Your task to perform on an android device: Open Android settings Image 0: 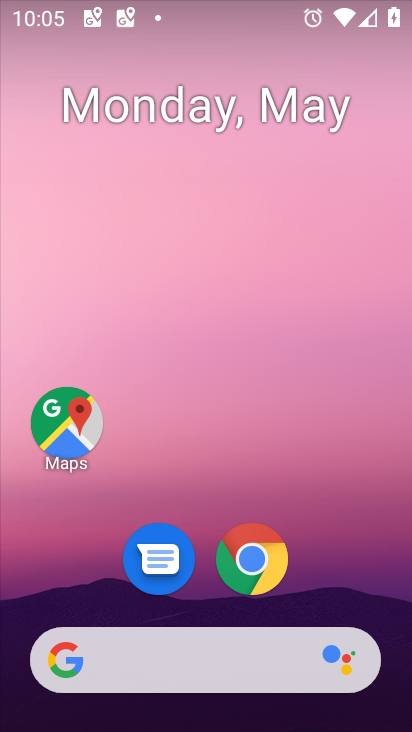
Step 0: drag from (388, 667) to (277, 71)
Your task to perform on an android device: Open Android settings Image 1: 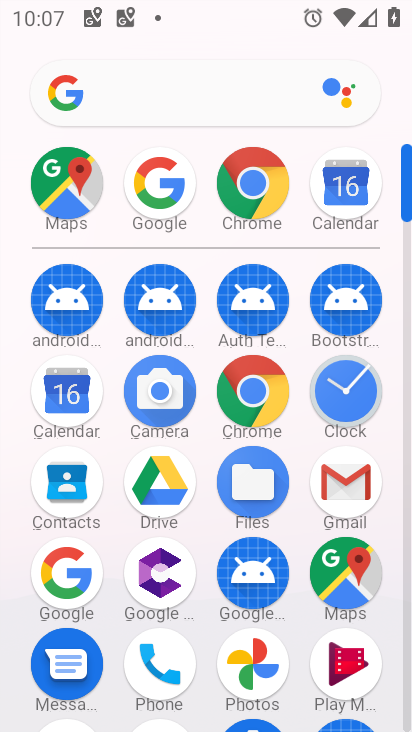
Step 1: drag from (207, 661) to (240, 103)
Your task to perform on an android device: Open Android settings Image 2: 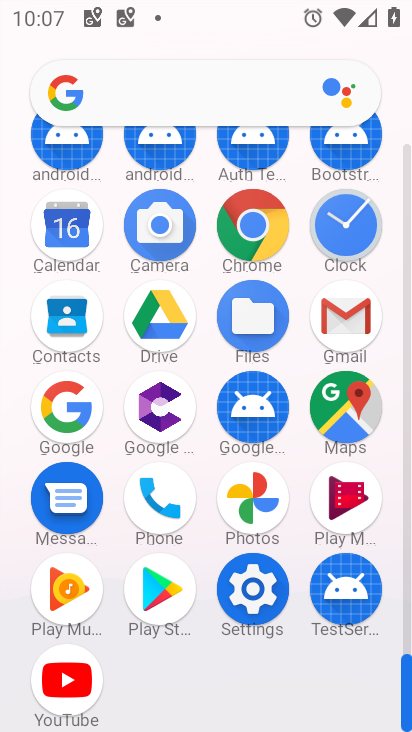
Step 2: click (261, 583)
Your task to perform on an android device: Open Android settings Image 3: 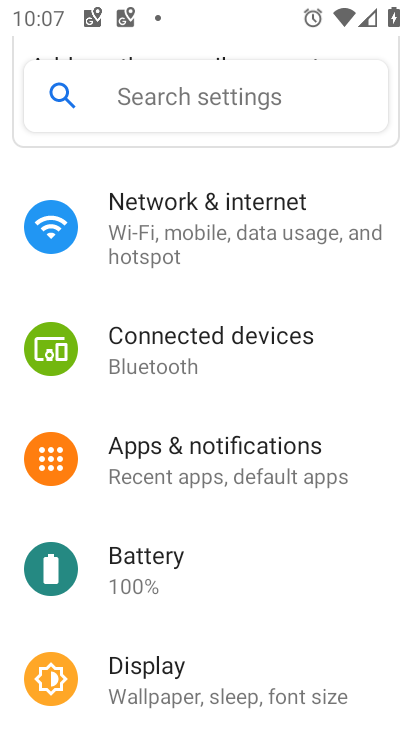
Step 3: drag from (139, 696) to (265, 122)
Your task to perform on an android device: Open Android settings Image 4: 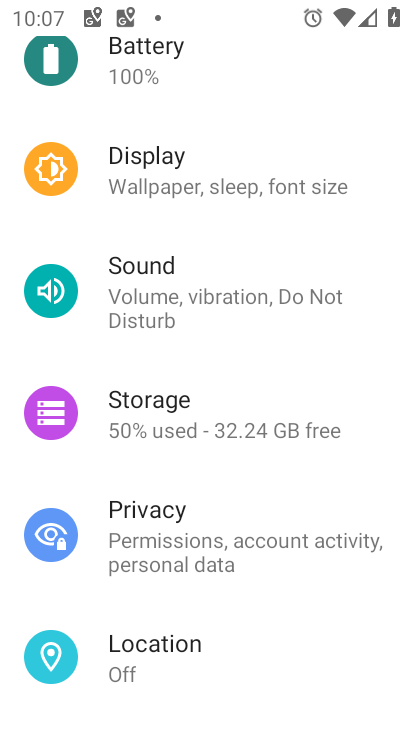
Step 4: drag from (177, 621) to (265, 81)
Your task to perform on an android device: Open Android settings Image 5: 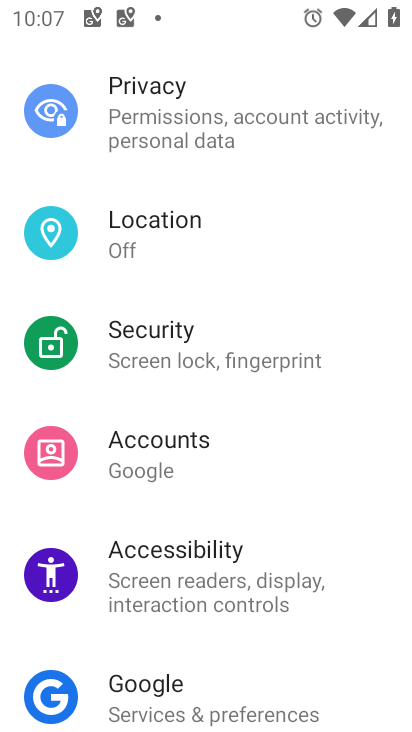
Step 5: drag from (174, 663) to (203, 73)
Your task to perform on an android device: Open Android settings Image 6: 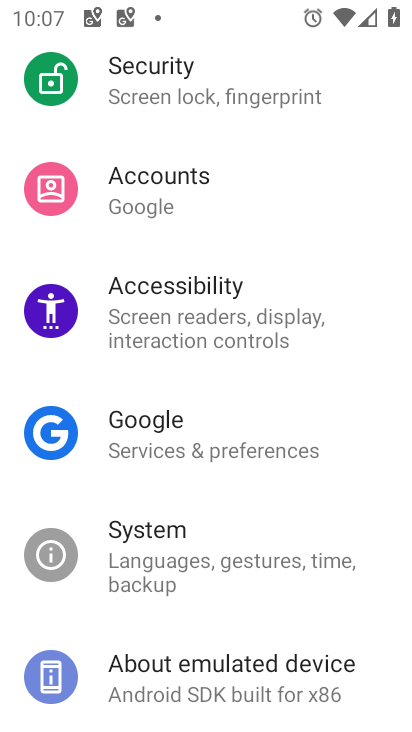
Step 6: click (183, 676)
Your task to perform on an android device: Open Android settings Image 7: 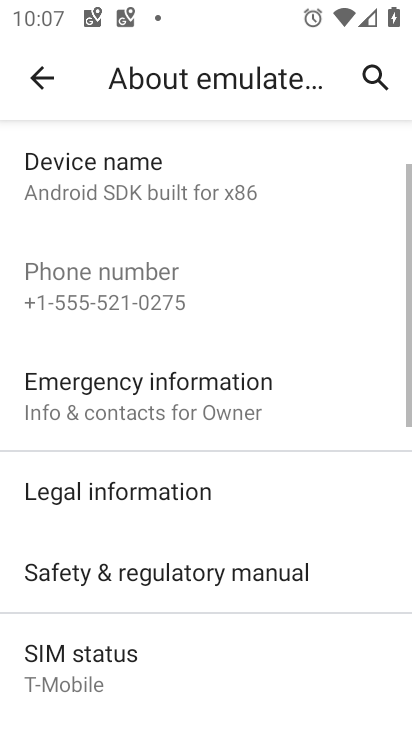
Step 7: drag from (160, 636) to (174, 115)
Your task to perform on an android device: Open Android settings Image 8: 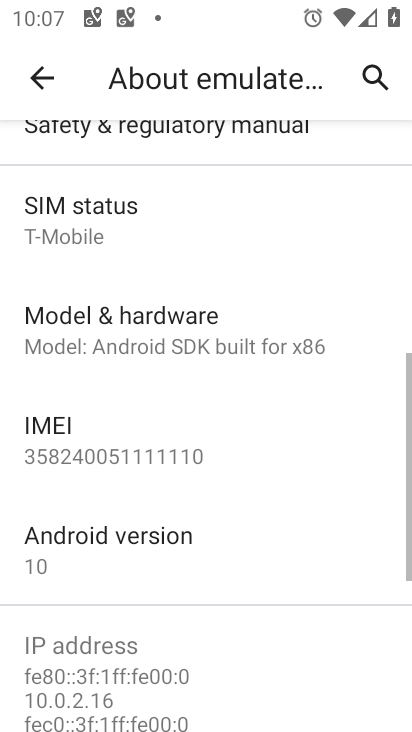
Step 8: click (127, 547)
Your task to perform on an android device: Open Android settings Image 9: 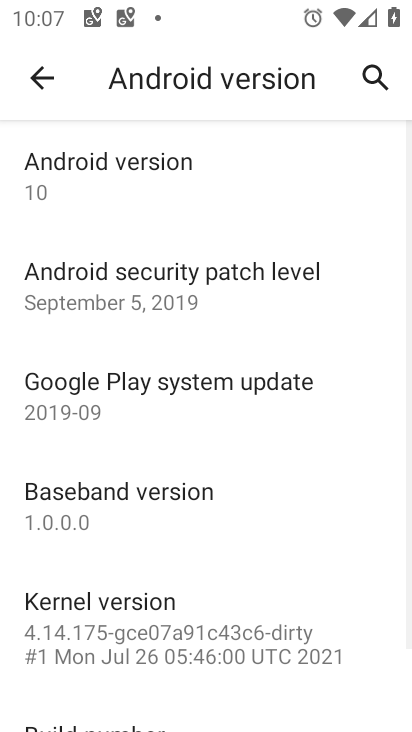
Step 9: task complete